Your task to perform on an android device: star an email in the gmail app Image 0: 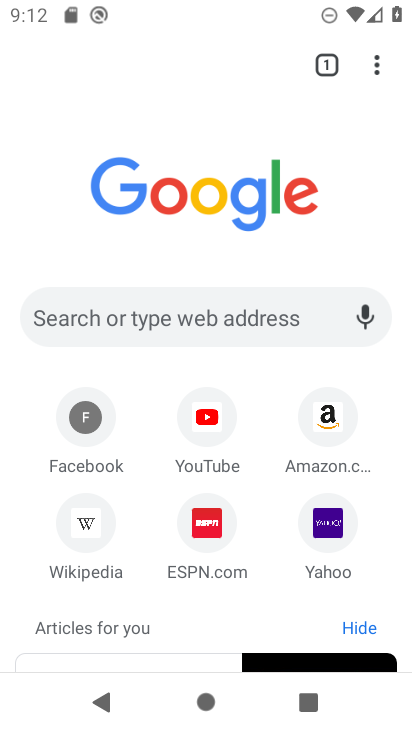
Step 0: press home button
Your task to perform on an android device: star an email in the gmail app Image 1: 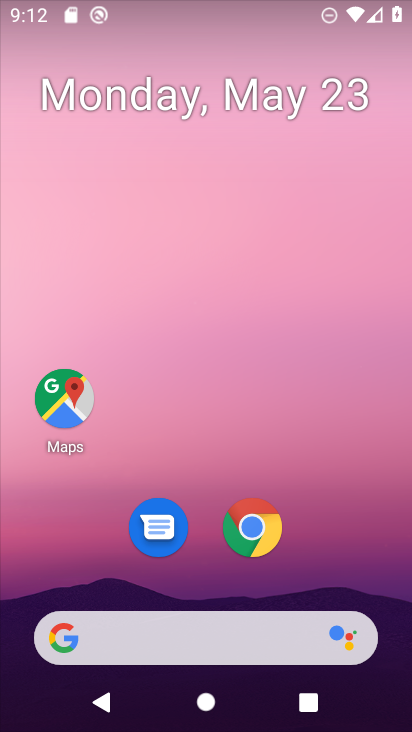
Step 1: drag from (211, 460) to (246, 0)
Your task to perform on an android device: star an email in the gmail app Image 2: 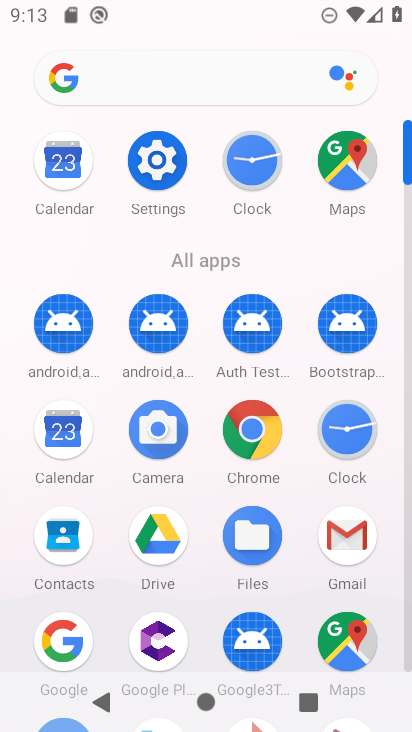
Step 2: click (346, 533)
Your task to perform on an android device: star an email in the gmail app Image 3: 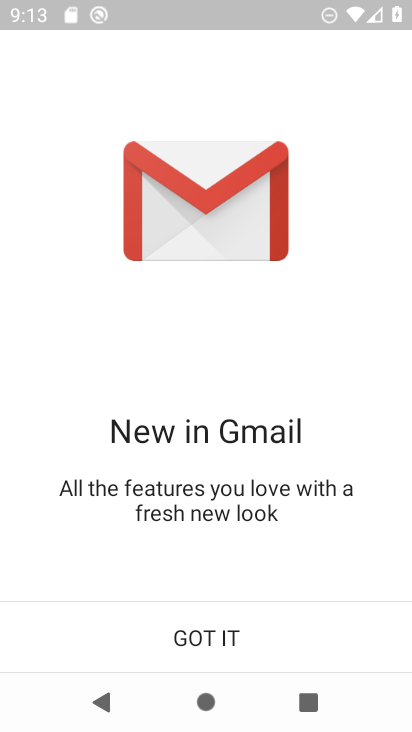
Step 3: click (246, 634)
Your task to perform on an android device: star an email in the gmail app Image 4: 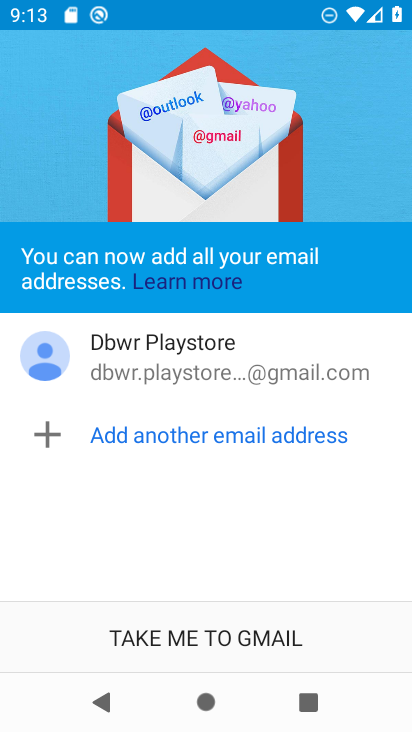
Step 4: click (246, 634)
Your task to perform on an android device: star an email in the gmail app Image 5: 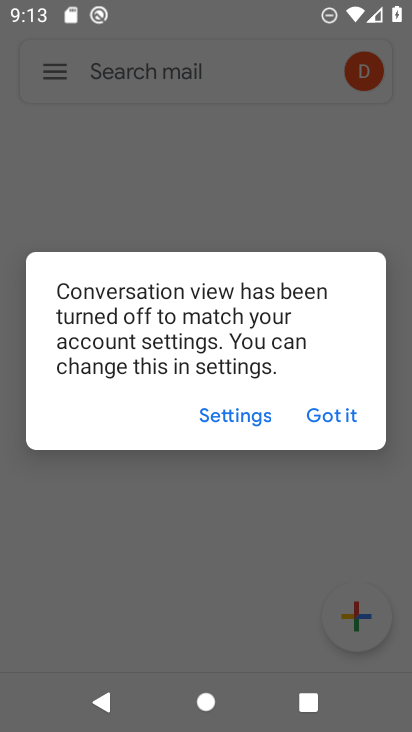
Step 5: click (318, 410)
Your task to perform on an android device: star an email in the gmail app Image 6: 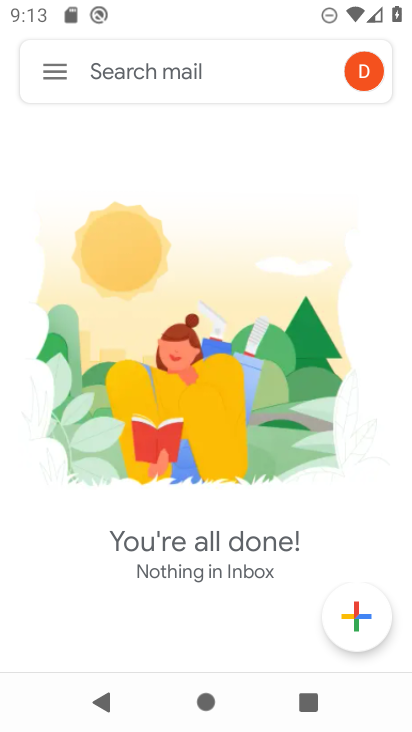
Step 6: click (45, 64)
Your task to perform on an android device: star an email in the gmail app Image 7: 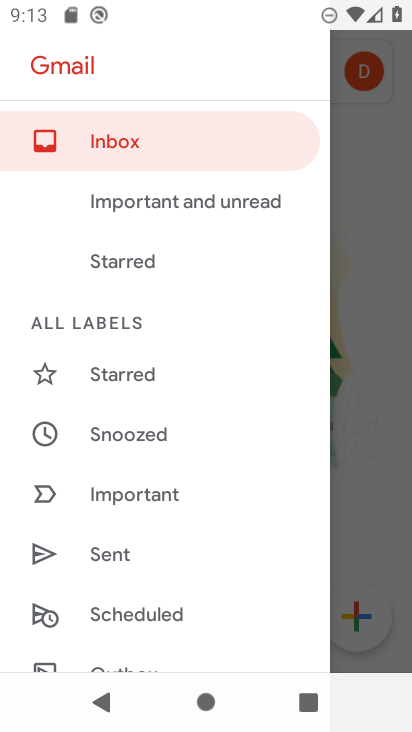
Step 7: drag from (163, 543) to (218, 153)
Your task to perform on an android device: star an email in the gmail app Image 8: 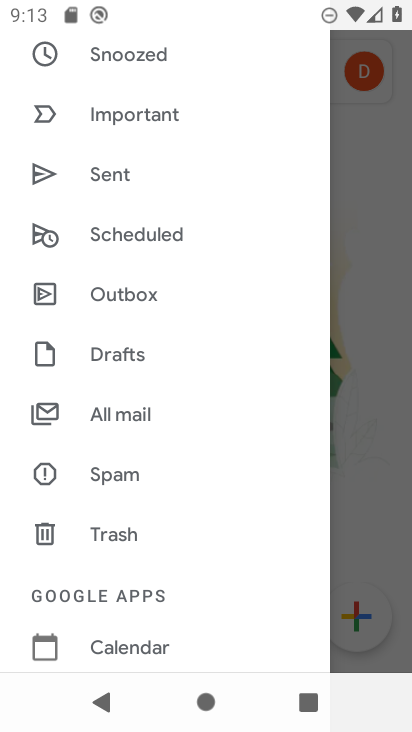
Step 8: click (159, 403)
Your task to perform on an android device: star an email in the gmail app Image 9: 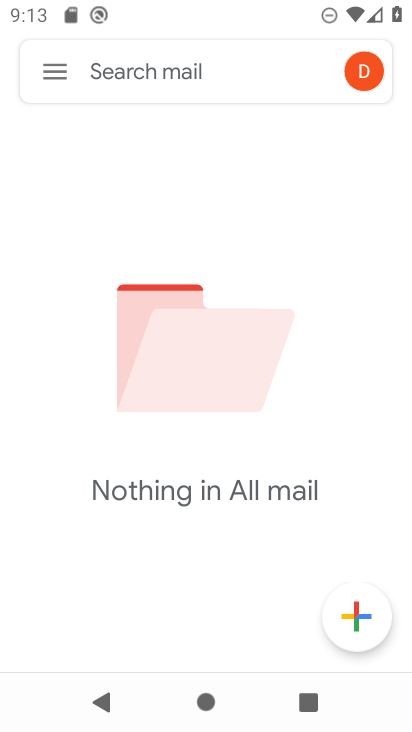
Step 9: task complete